Your task to perform on an android device: refresh tabs in the chrome app Image 0: 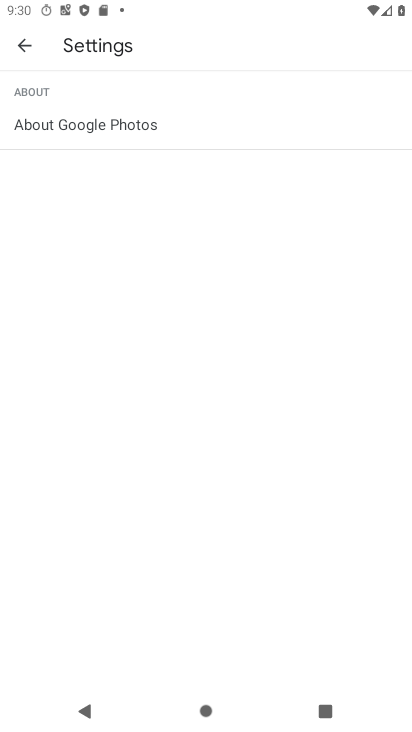
Step 0: press home button
Your task to perform on an android device: refresh tabs in the chrome app Image 1: 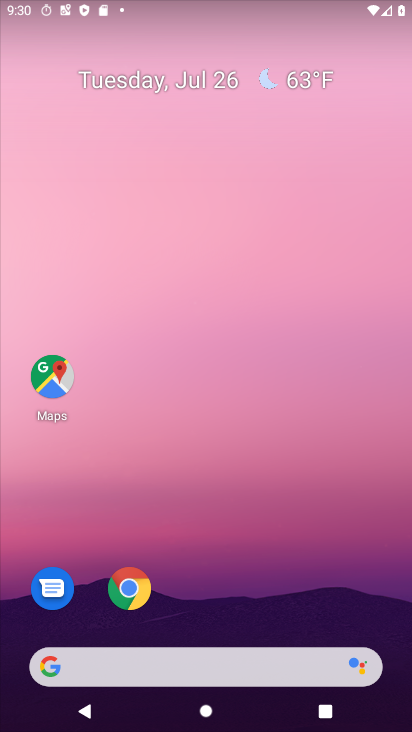
Step 1: click (124, 600)
Your task to perform on an android device: refresh tabs in the chrome app Image 2: 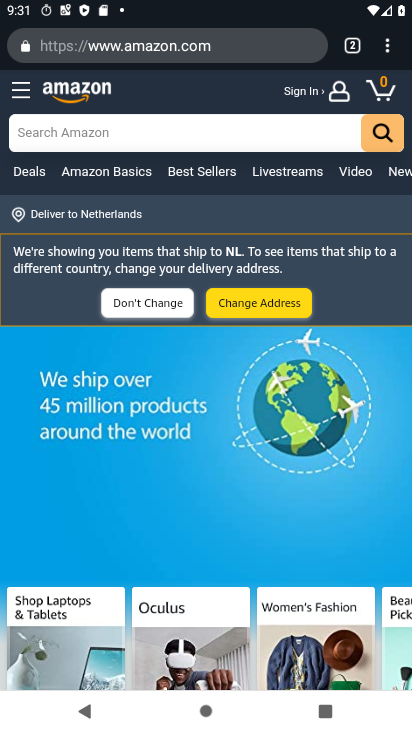
Step 2: click (399, 46)
Your task to perform on an android device: refresh tabs in the chrome app Image 3: 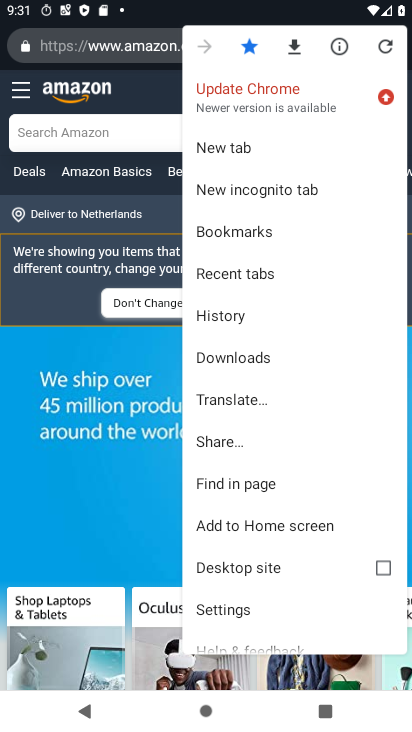
Step 3: click (390, 46)
Your task to perform on an android device: refresh tabs in the chrome app Image 4: 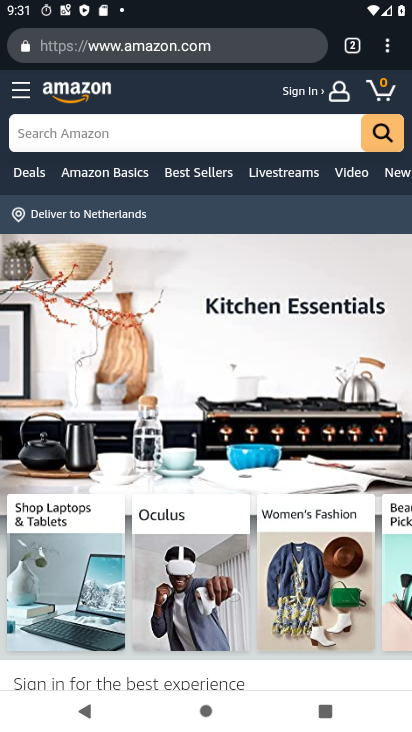
Step 4: task complete